Your task to perform on an android device: What's a good restaurant in Boston? Image 0: 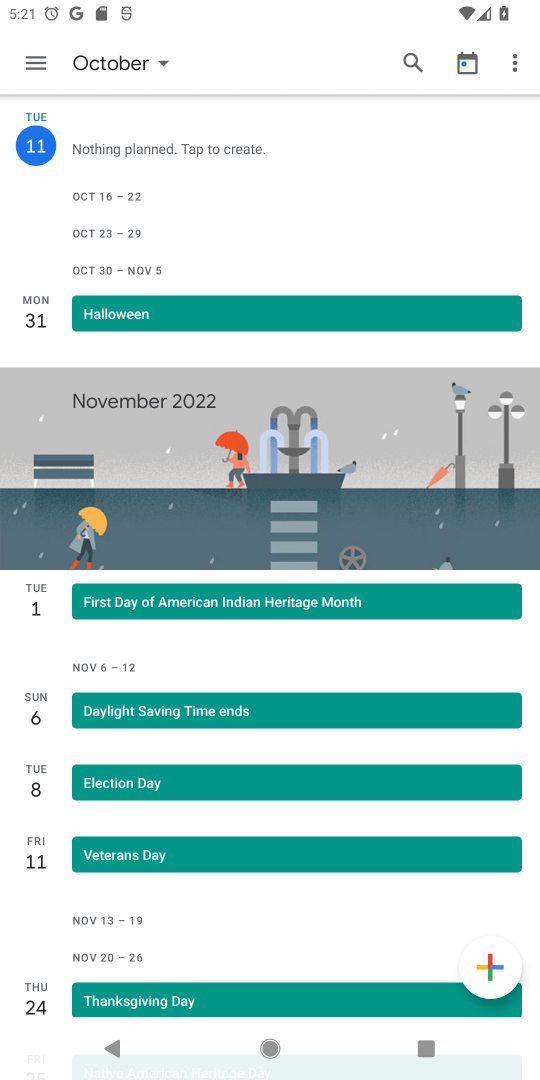
Step 0: press home button
Your task to perform on an android device: What's a good restaurant in Boston? Image 1: 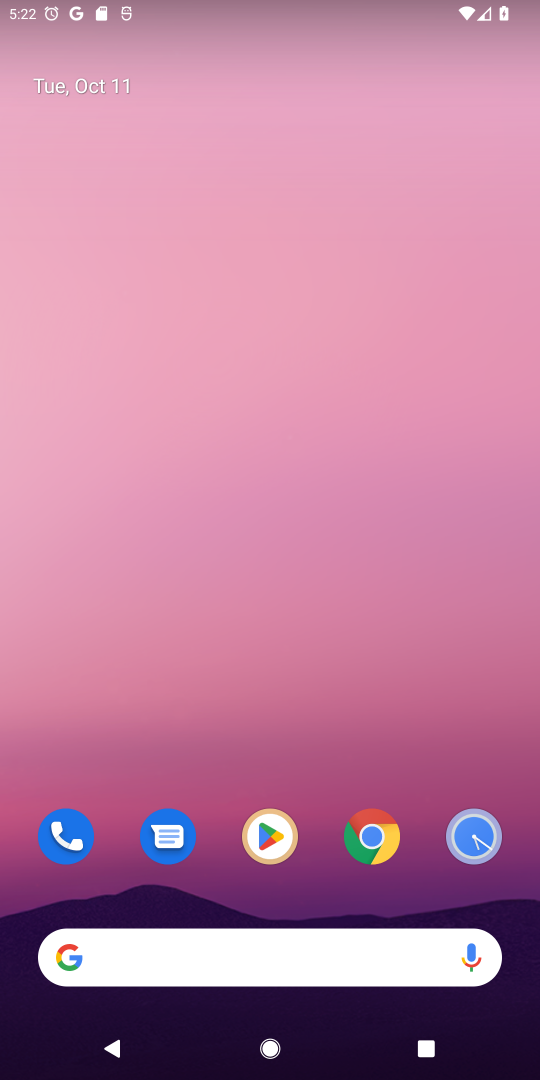
Step 1: click (282, 977)
Your task to perform on an android device: What's a good restaurant in Boston? Image 2: 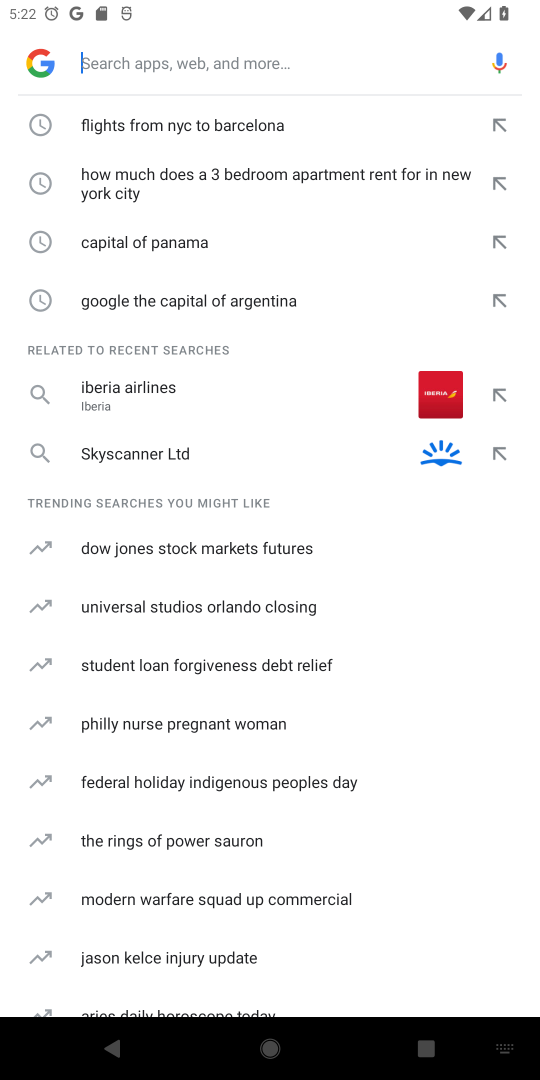
Step 2: type "good restaurant in Boston?"
Your task to perform on an android device: What's a good restaurant in Boston? Image 3: 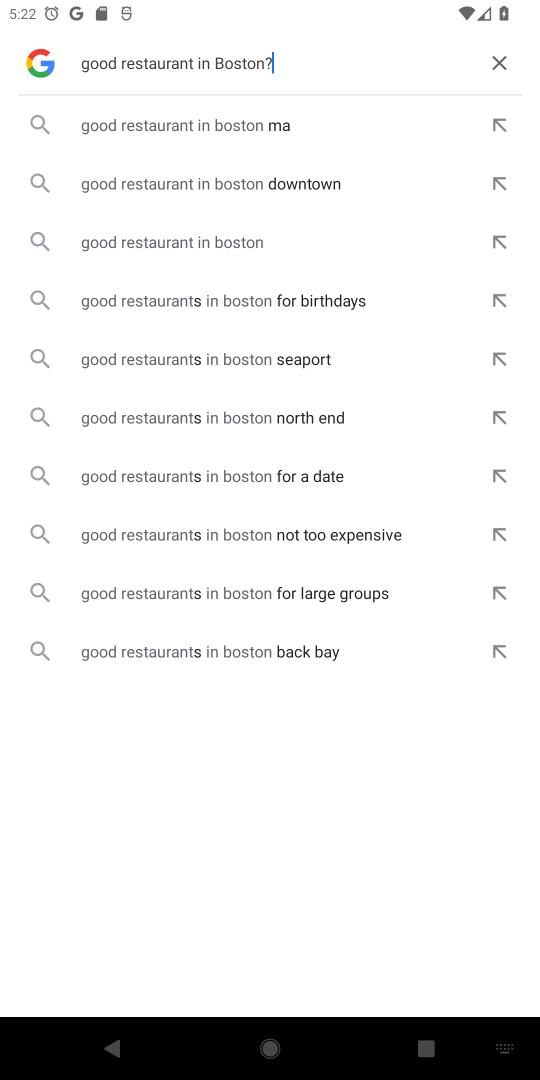
Step 3: click (358, 141)
Your task to perform on an android device: What's a good restaurant in Boston? Image 4: 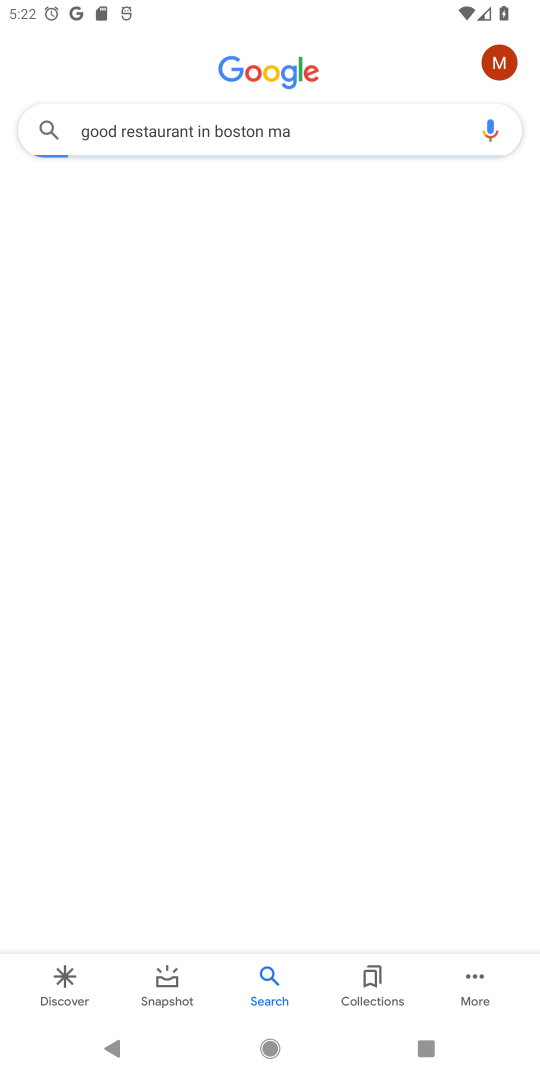
Step 4: task complete